Your task to perform on an android device: Open network settings Image 0: 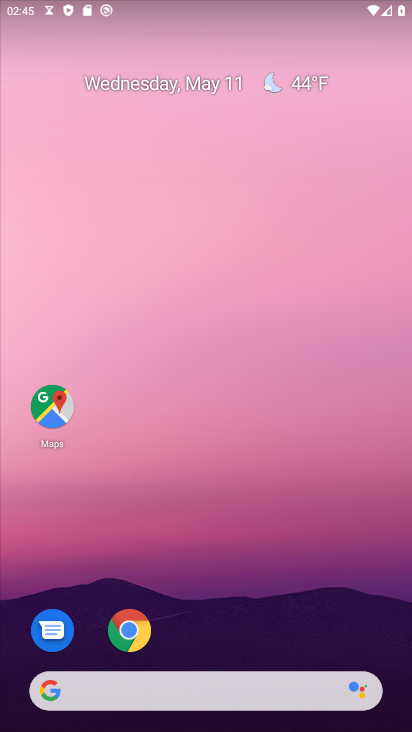
Step 0: drag from (198, 708) to (197, 95)
Your task to perform on an android device: Open network settings Image 1: 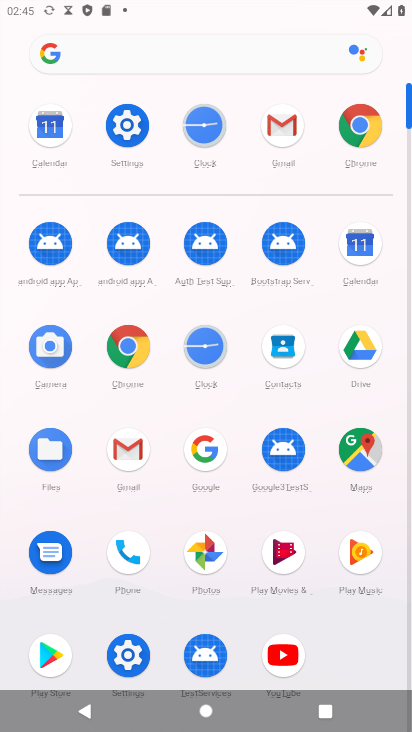
Step 1: click (129, 117)
Your task to perform on an android device: Open network settings Image 2: 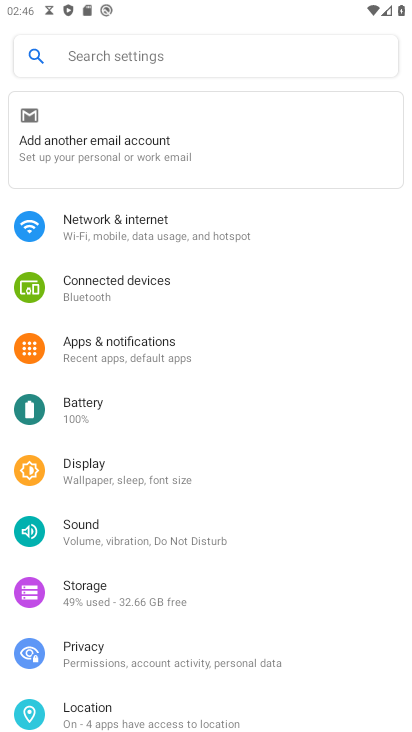
Step 2: click (115, 226)
Your task to perform on an android device: Open network settings Image 3: 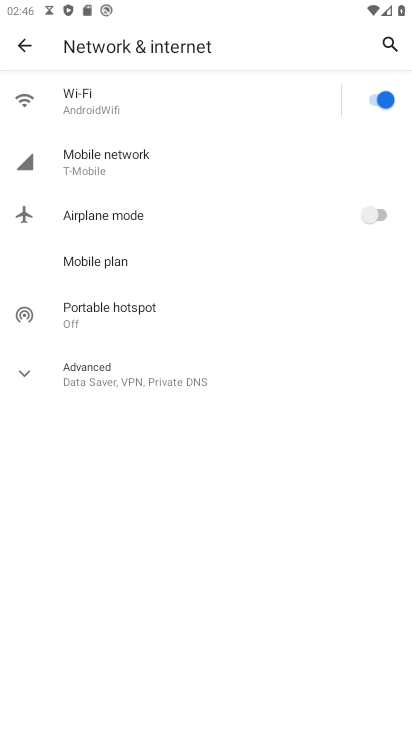
Step 3: task complete